Your task to perform on an android device: Open eBay Image 0: 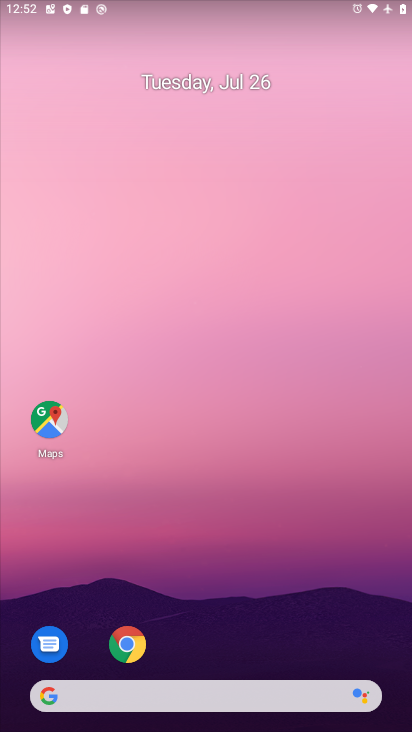
Step 0: drag from (166, 607) to (238, 167)
Your task to perform on an android device: Open eBay Image 1: 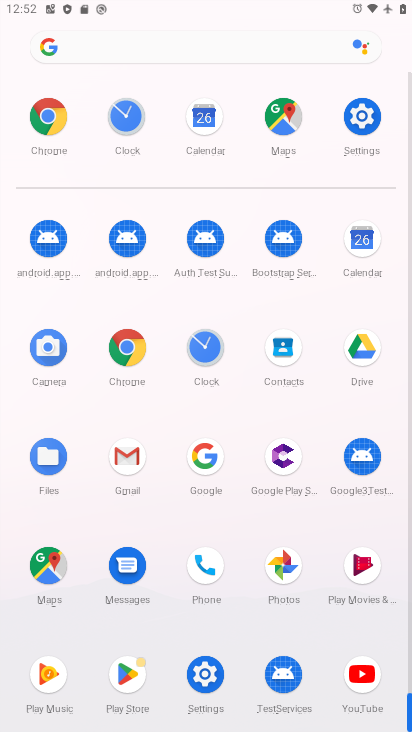
Step 1: click (52, 128)
Your task to perform on an android device: Open eBay Image 2: 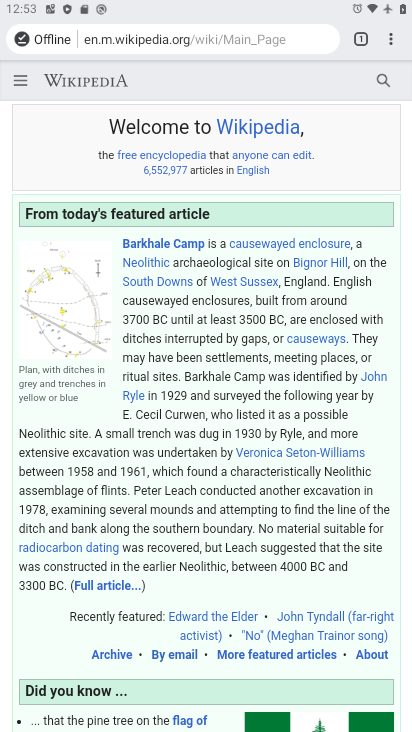
Step 2: click (158, 43)
Your task to perform on an android device: Open eBay Image 3: 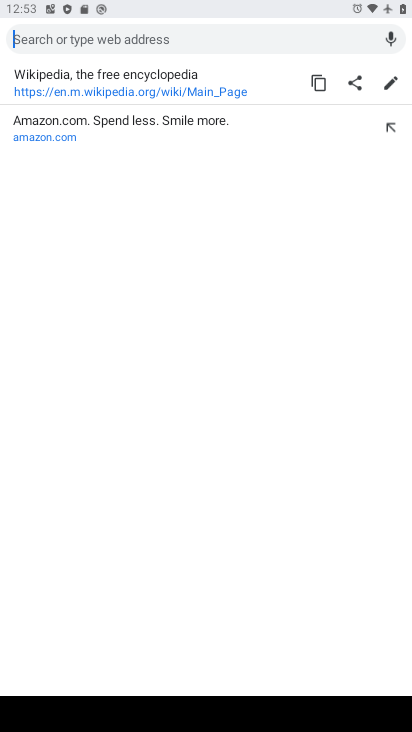
Step 3: type "ebay"
Your task to perform on an android device: Open eBay Image 4: 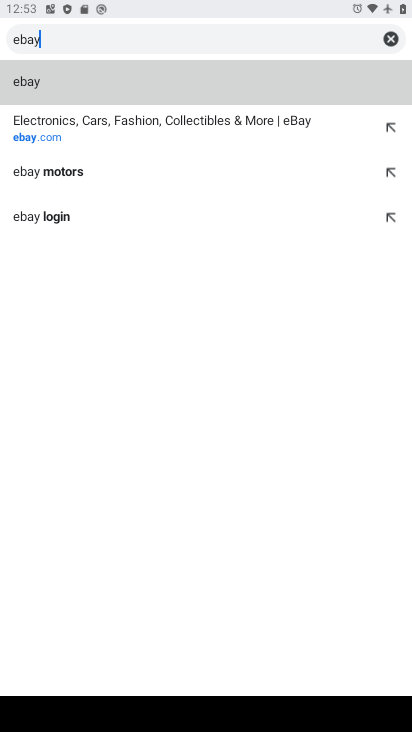
Step 4: click (143, 138)
Your task to perform on an android device: Open eBay Image 5: 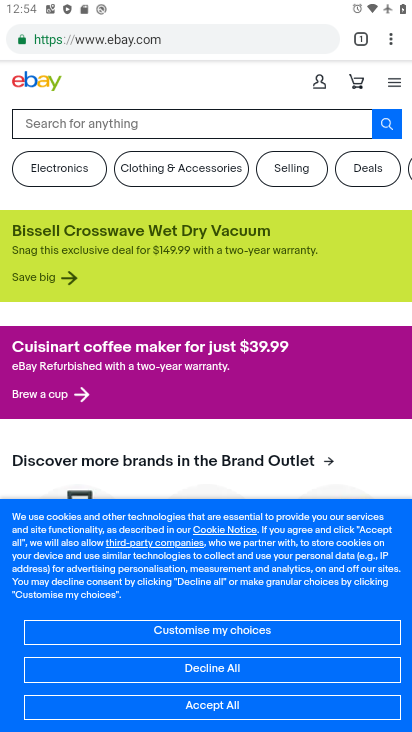
Step 5: task complete